Your task to perform on an android device: set the stopwatch Image 0: 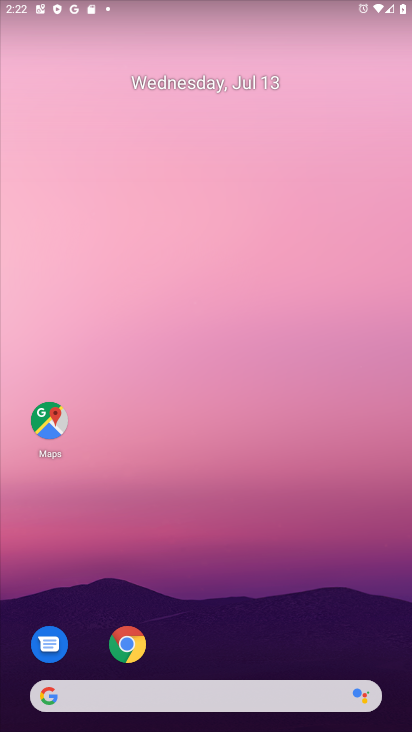
Step 0: drag from (200, 658) to (155, 138)
Your task to perform on an android device: set the stopwatch Image 1: 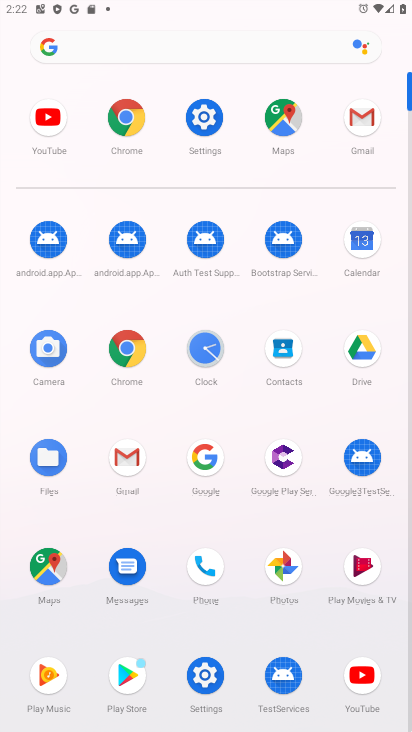
Step 1: click (211, 352)
Your task to perform on an android device: set the stopwatch Image 2: 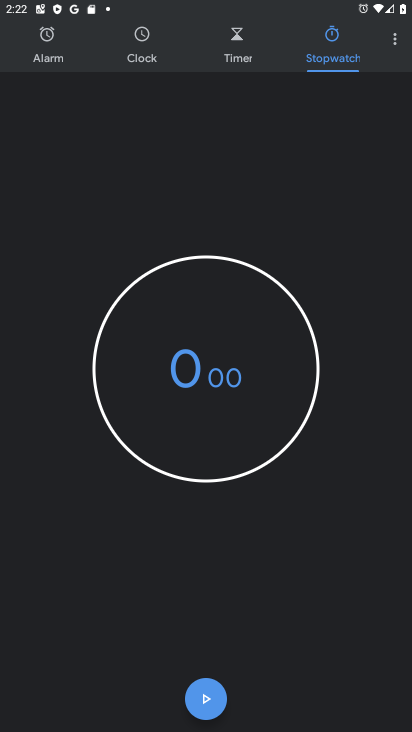
Step 2: click (333, 51)
Your task to perform on an android device: set the stopwatch Image 3: 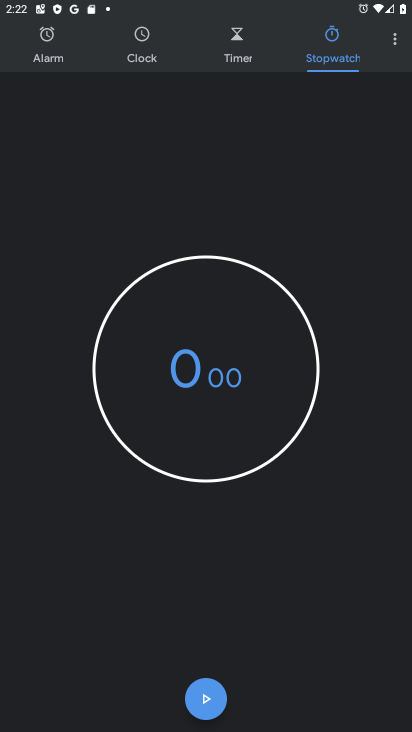
Step 3: task complete